Your task to perform on an android device: empty trash in google photos Image 0: 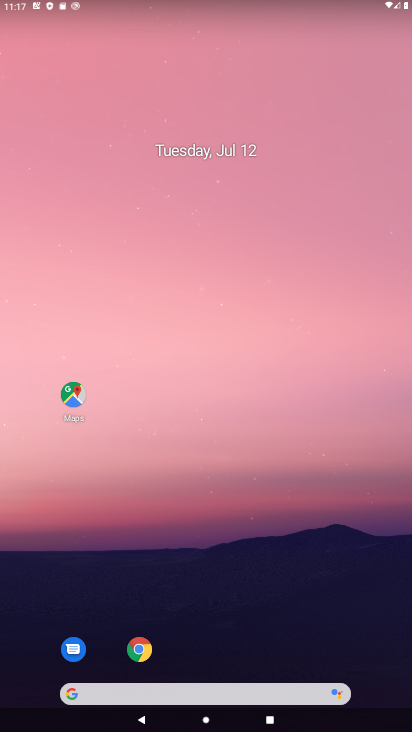
Step 0: drag from (370, 647) to (333, 13)
Your task to perform on an android device: empty trash in google photos Image 1: 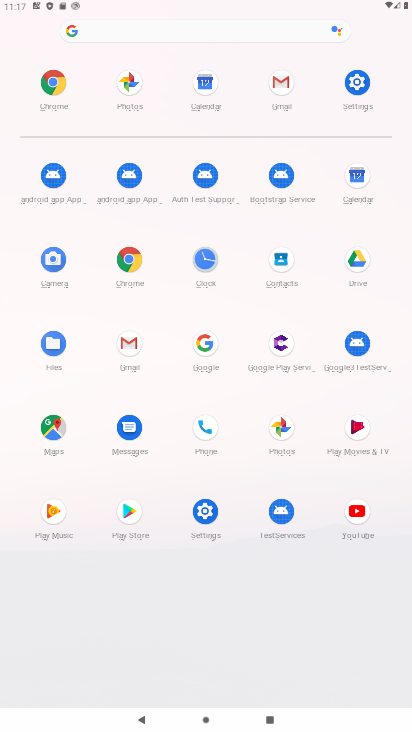
Step 1: click (282, 426)
Your task to perform on an android device: empty trash in google photos Image 2: 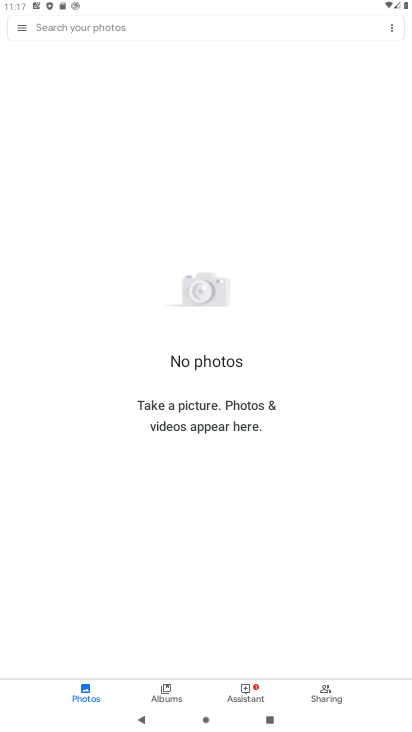
Step 2: click (19, 32)
Your task to perform on an android device: empty trash in google photos Image 3: 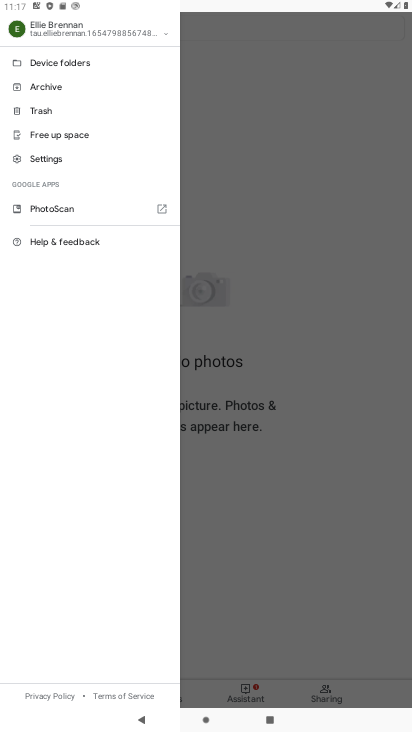
Step 3: click (35, 110)
Your task to perform on an android device: empty trash in google photos Image 4: 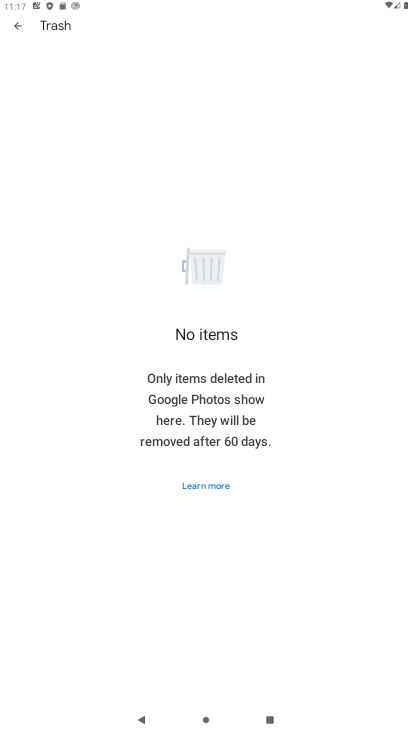
Step 4: task complete